Your task to perform on an android device: turn off notifications settings in the gmail app Image 0: 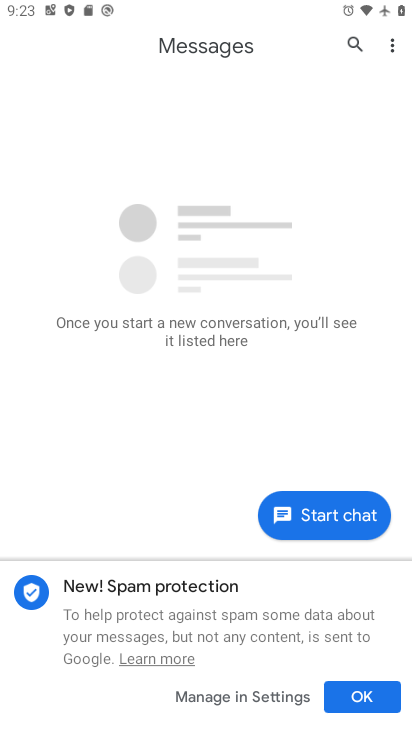
Step 0: press home button
Your task to perform on an android device: turn off notifications settings in the gmail app Image 1: 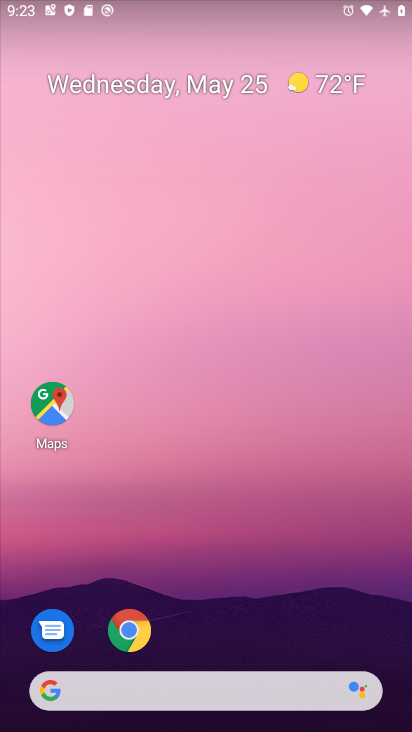
Step 1: drag from (232, 626) to (235, 208)
Your task to perform on an android device: turn off notifications settings in the gmail app Image 2: 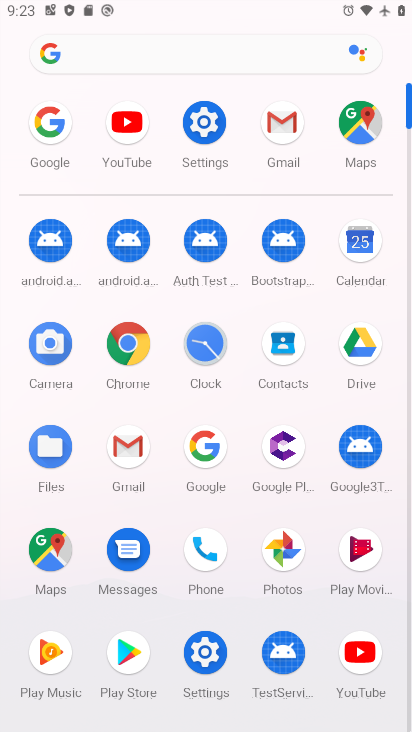
Step 2: click (270, 141)
Your task to perform on an android device: turn off notifications settings in the gmail app Image 3: 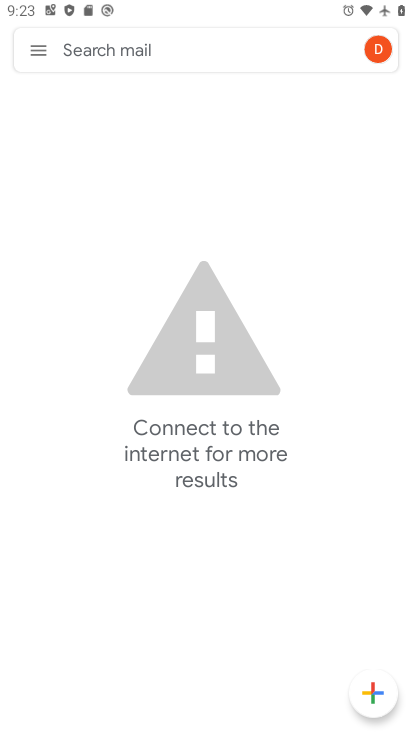
Step 3: click (38, 59)
Your task to perform on an android device: turn off notifications settings in the gmail app Image 4: 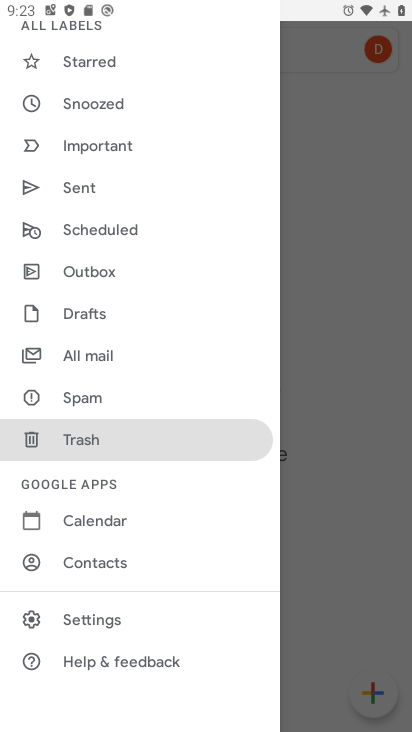
Step 4: click (124, 619)
Your task to perform on an android device: turn off notifications settings in the gmail app Image 5: 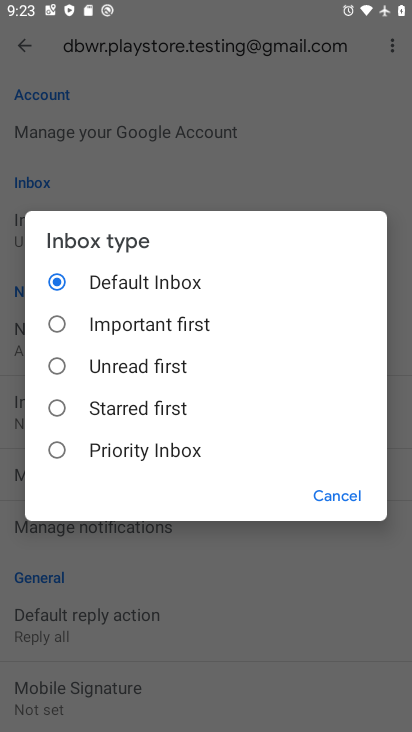
Step 5: click (313, 490)
Your task to perform on an android device: turn off notifications settings in the gmail app Image 6: 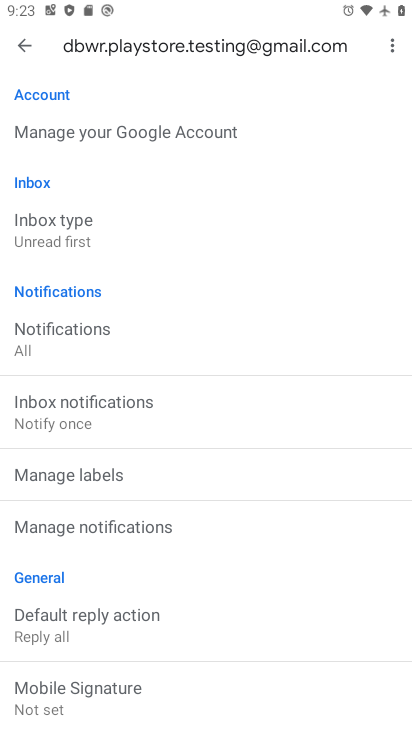
Step 6: click (134, 521)
Your task to perform on an android device: turn off notifications settings in the gmail app Image 7: 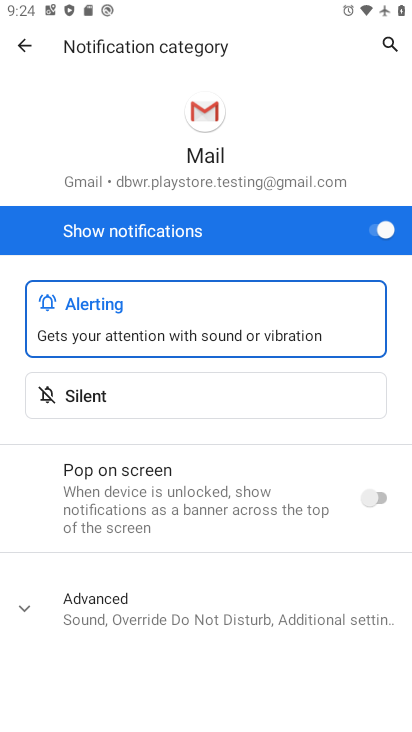
Step 7: click (375, 228)
Your task to perform on an android device: turn off notifications settings in the gmail app Image 8: 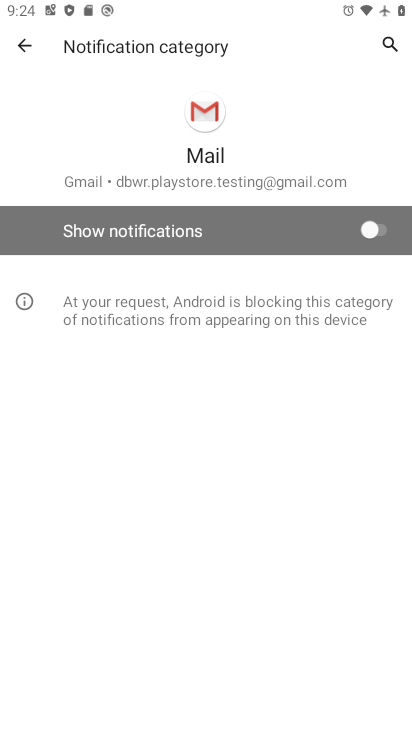
Step 8: task complete